Your task to perform on an android device: turn on priority inbox in the gmail app Image 0: 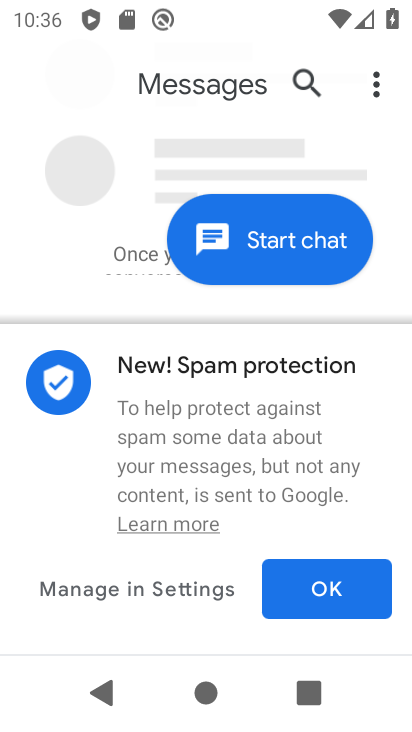
Step 0: press home button
Your task to perform on an android device: turn on priority inbox in the gmail app Image 1: 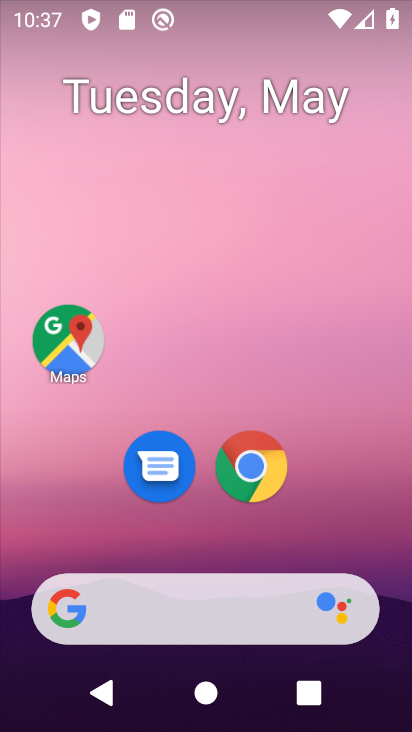
Step 1: drag from (335, 542) to (269, 82)
Your task to perform on an android device: turn on priority inbox in the gmail app Image 2: 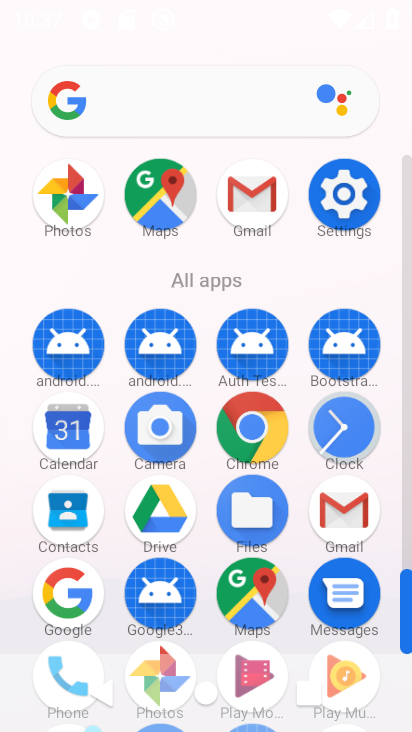
Step 2: click (264, 224)
Your task to perform on an android device: turn on priority inbox in the gmail app Image 3: 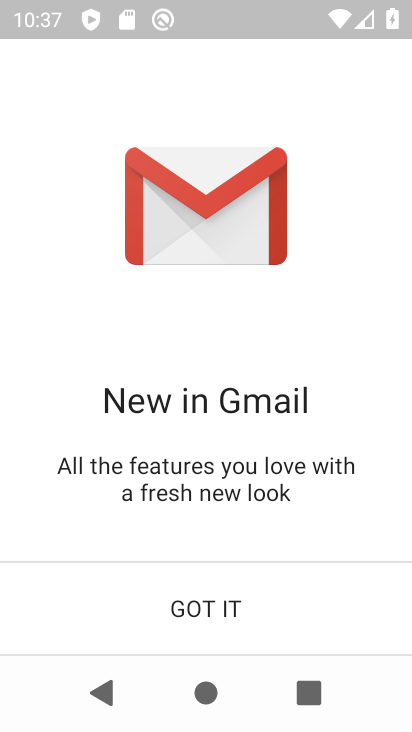
Step 3: click (234, 592)
Your task to perform on an android device: turn on priority inbox in the gmail app Image 4: 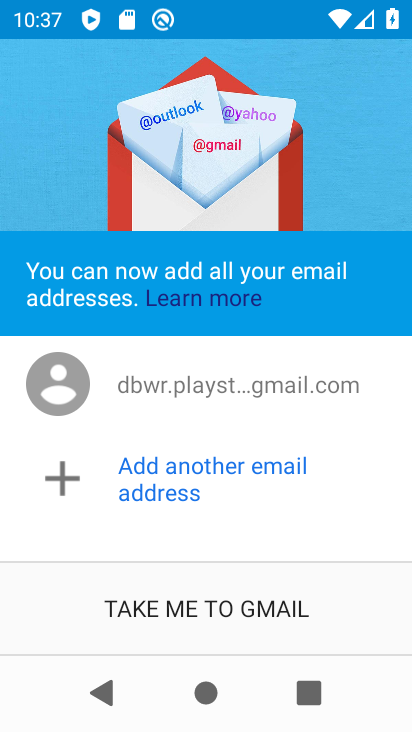
Step 4: click (234, 592)
Your task to perform on an android device: turn on priority inbox in the gmail app Image 5: 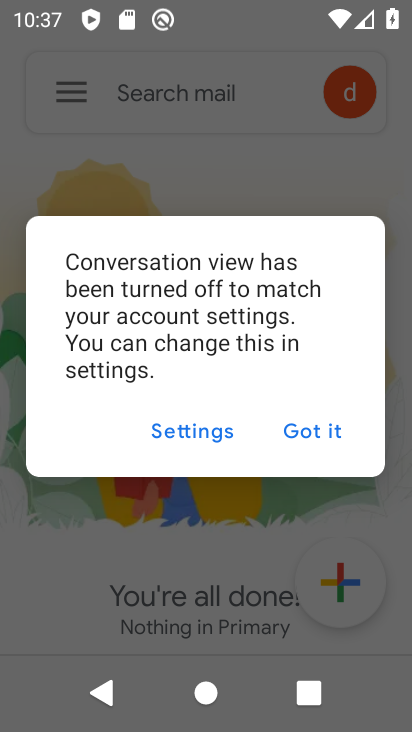
Step 5: click (341, 440)
Your task to perform on an android device: turn on priority inbox in the gmail app Image 6: 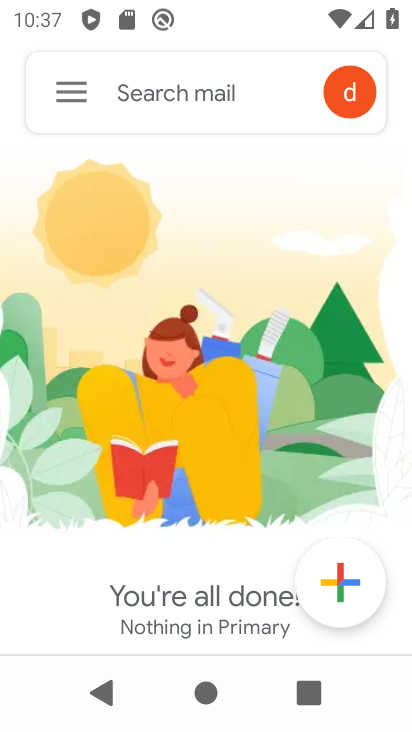
Step 6: click (76, 101)
Your task to perform on an android device: turn on priority inbox in the gmail app Image 7: 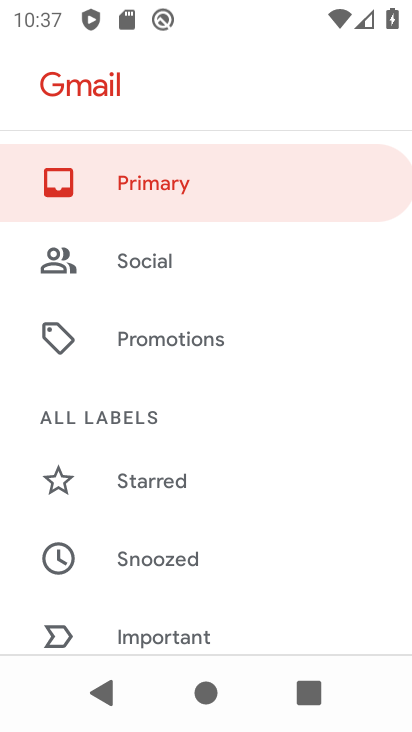
Step 7: drag from (187, 612) to (138, 188)
Your task to perform on an android device: turn on priority inbox in the gmail app Image 8: 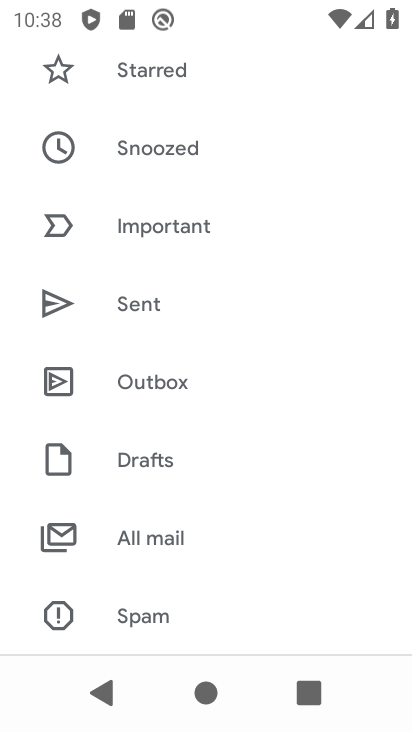
Step 8: drag from (187, 593) to (142, 173)
Your task to perform on an android device: turn on priority inbox in the gmail app Image 9: 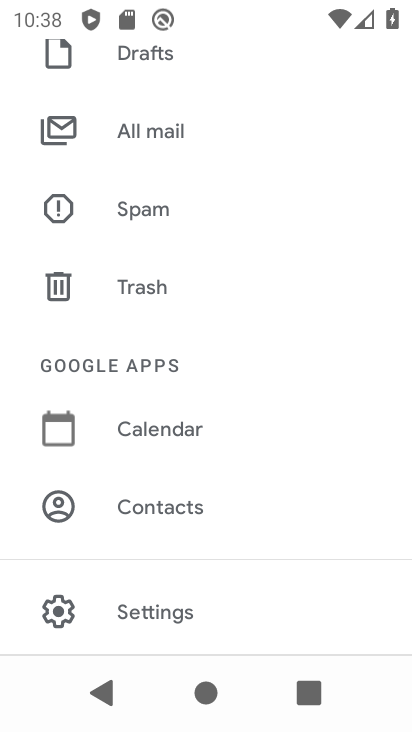
Step 9: drag from (207, 576) to (147, 302)
Your task to perform on an android device: turn on priority inbox in the gmail app Image 10: 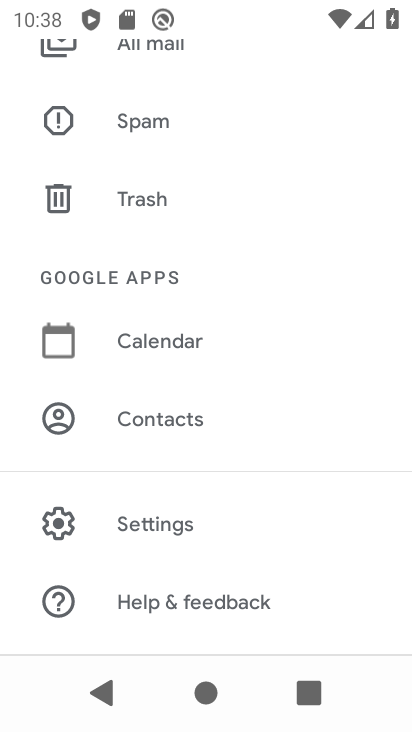
Step 10: click (179, 519)
Your task to perform on an android device: turn on priority inbox in the gmail app Image 11: 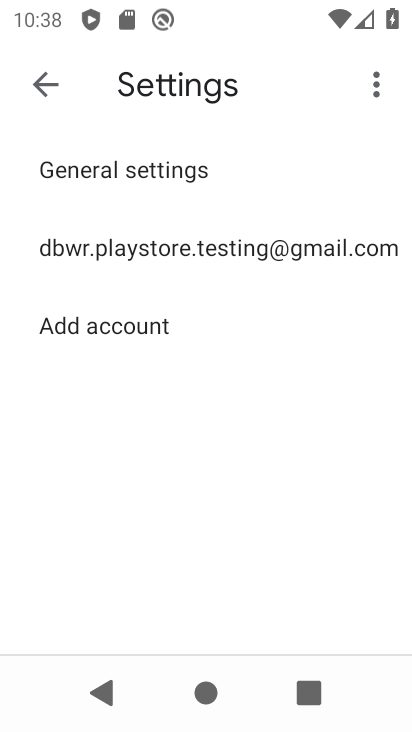
Step 11: click (215, 257)
Your task to perform on an android device: turn on priority inbox in the gmail app Image 12: 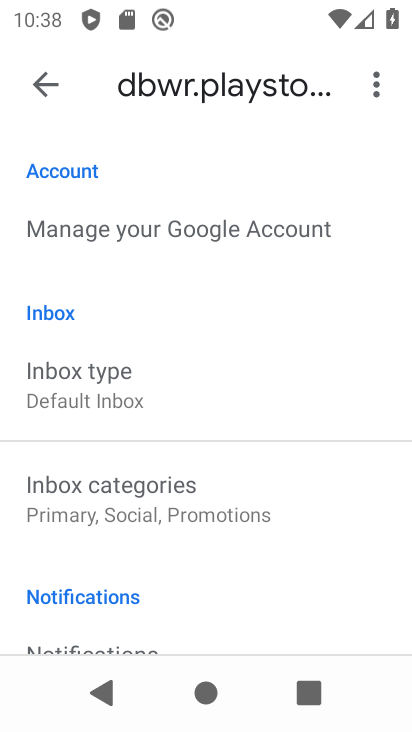
Step 12: click (197, 379)
Your task to perform on an android device: turn on priority inbox in the gmail app Image 13: 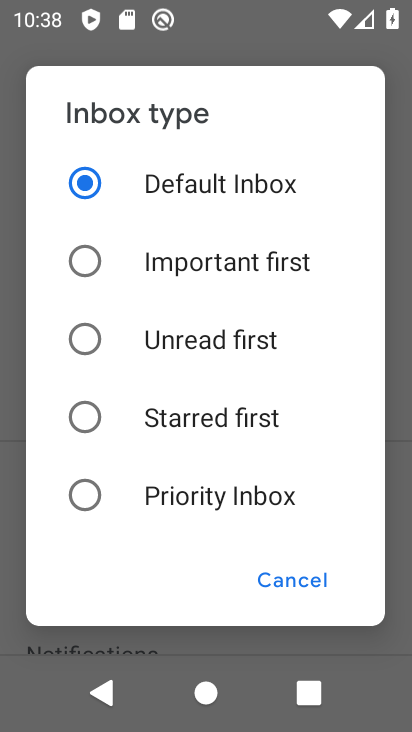
Step 13: click (203, 516)
Your task to perform on an android device: turn on priority inbox in the gmail app Image 14: 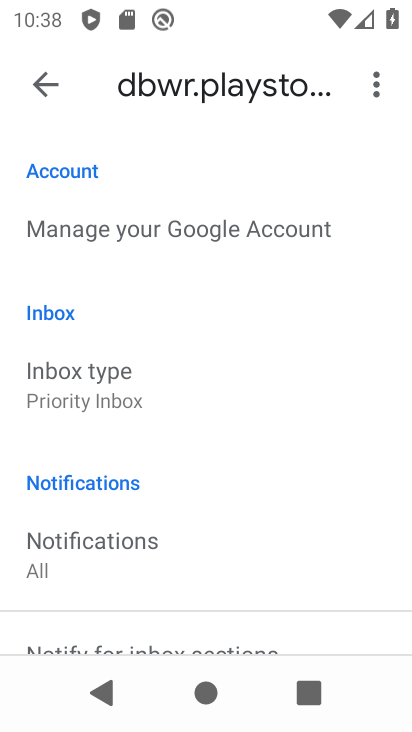
Step 14: task complete